Your task to perform on an android device: Search for "alienware area 51" on target.com, select the first entry, add it to the cart, then select checkout. Image 0: 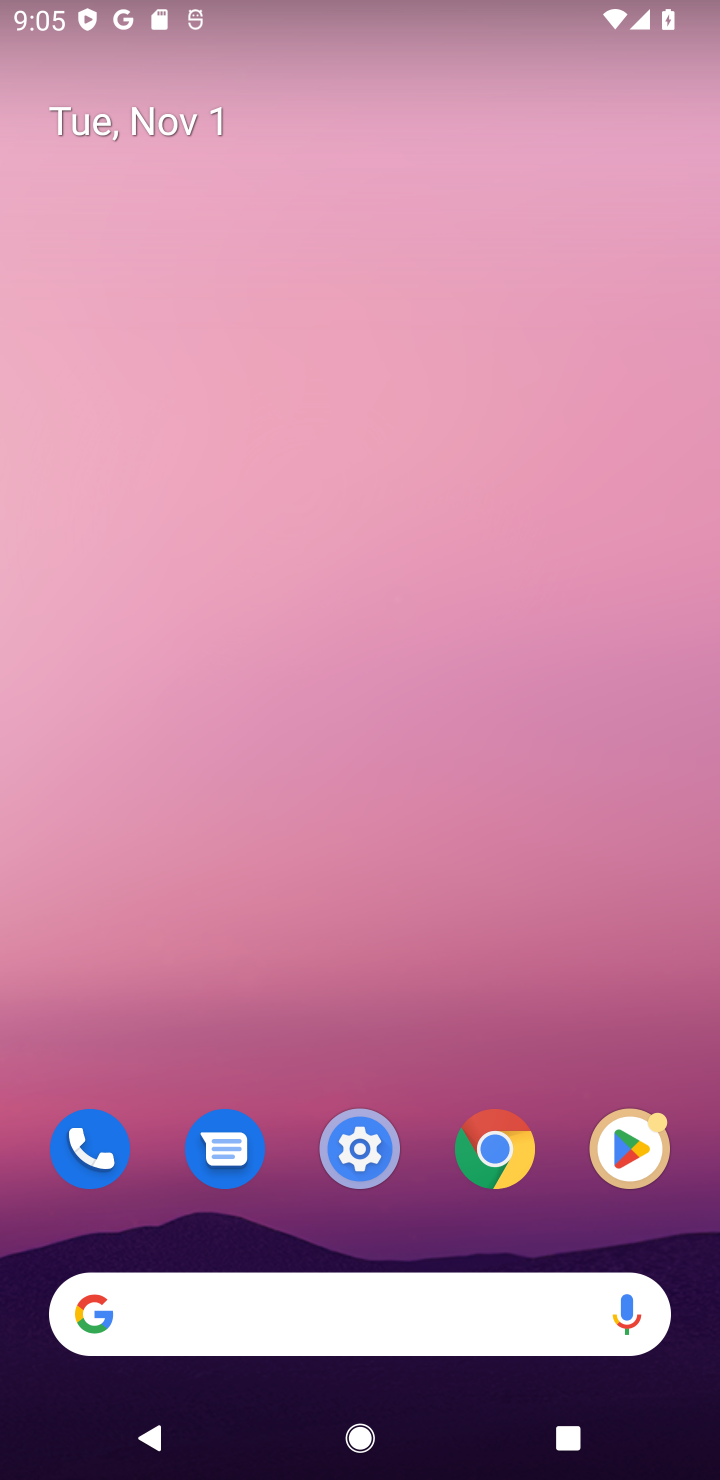
Step 0: press home button
Your task to perform on an android device: Search for "alienware area 51" on target.com, select the first entry, add it to the cart, then select checkout. Image 1: 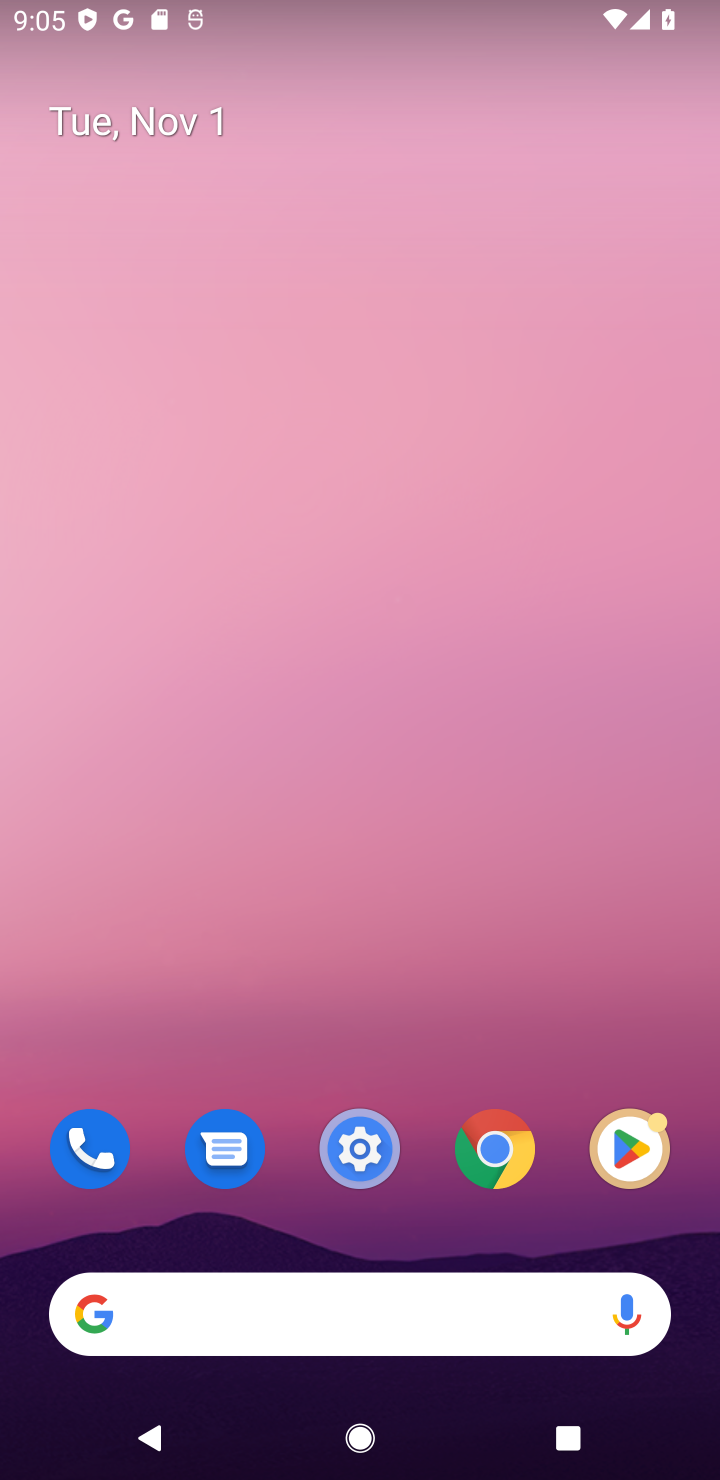
Step 1: click (162, 1312)
Your task to perform on an android device: Search for "alienware area 51" on target.com, select the first entry, add it to the cart, then select checkout. Image 2: 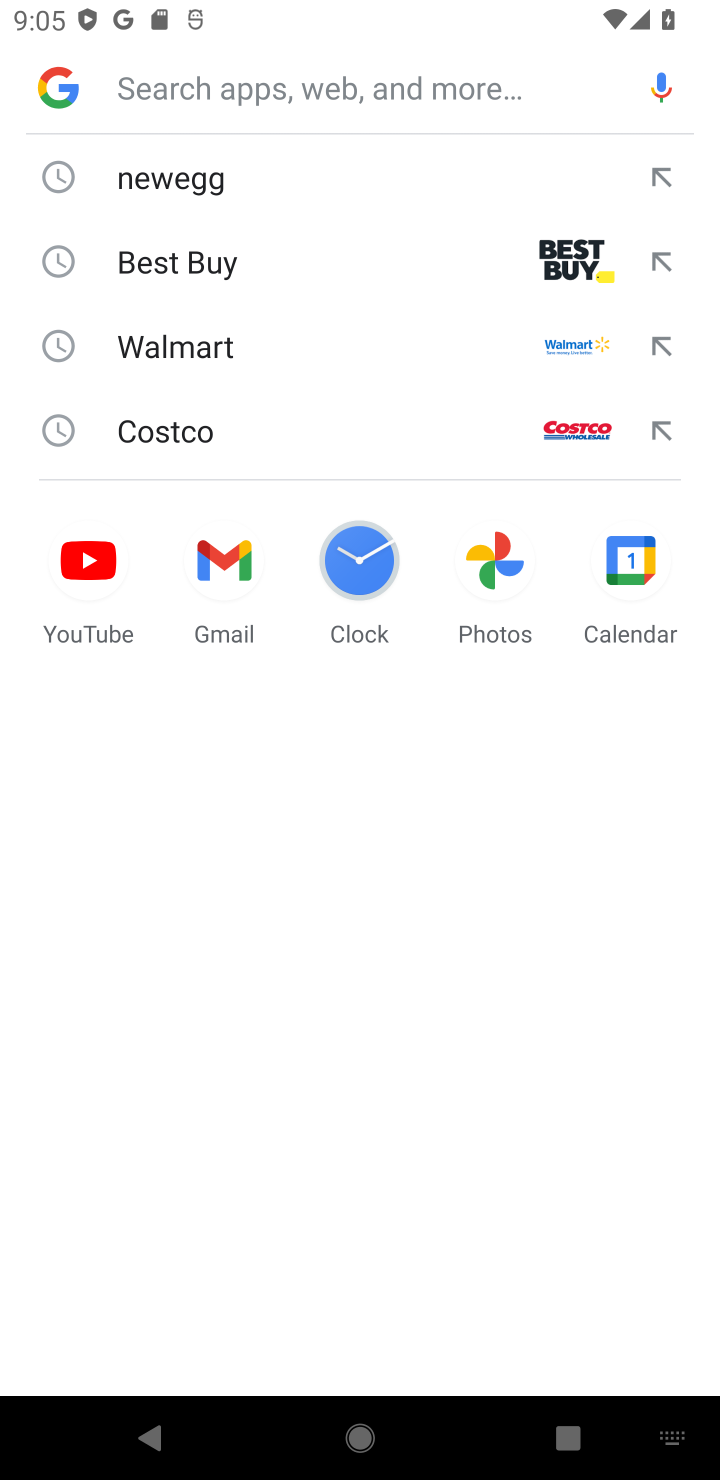
Step 2: type "target.com"
Your task to perform on an android device: Search for "alienware area 51" on target.com, select the first entry, add it to the cart, then select checkout. Image 3: 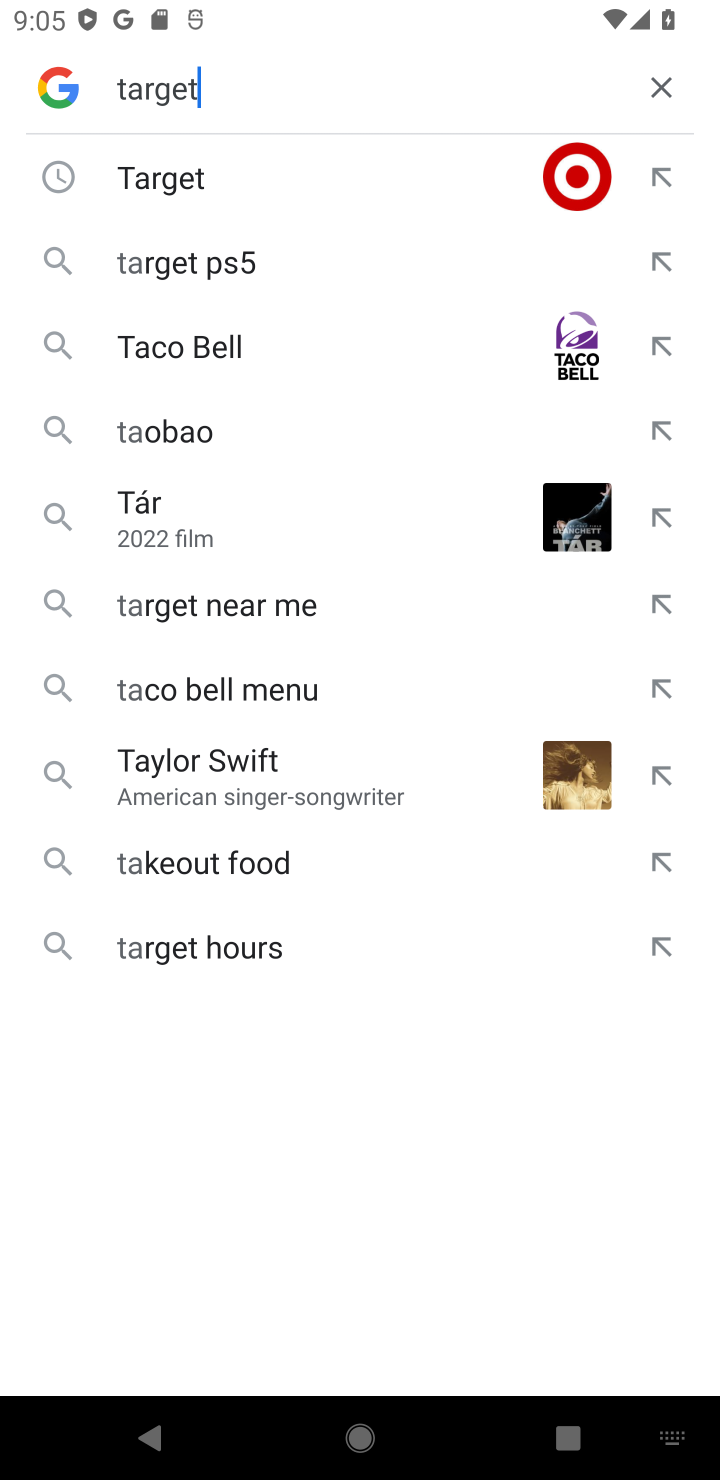
Step 3: press enter
Your task to perform on an android device: Search for "alienware area 51" on target.com, select the first entry, add it to the cart, then select checkout. Image 4: 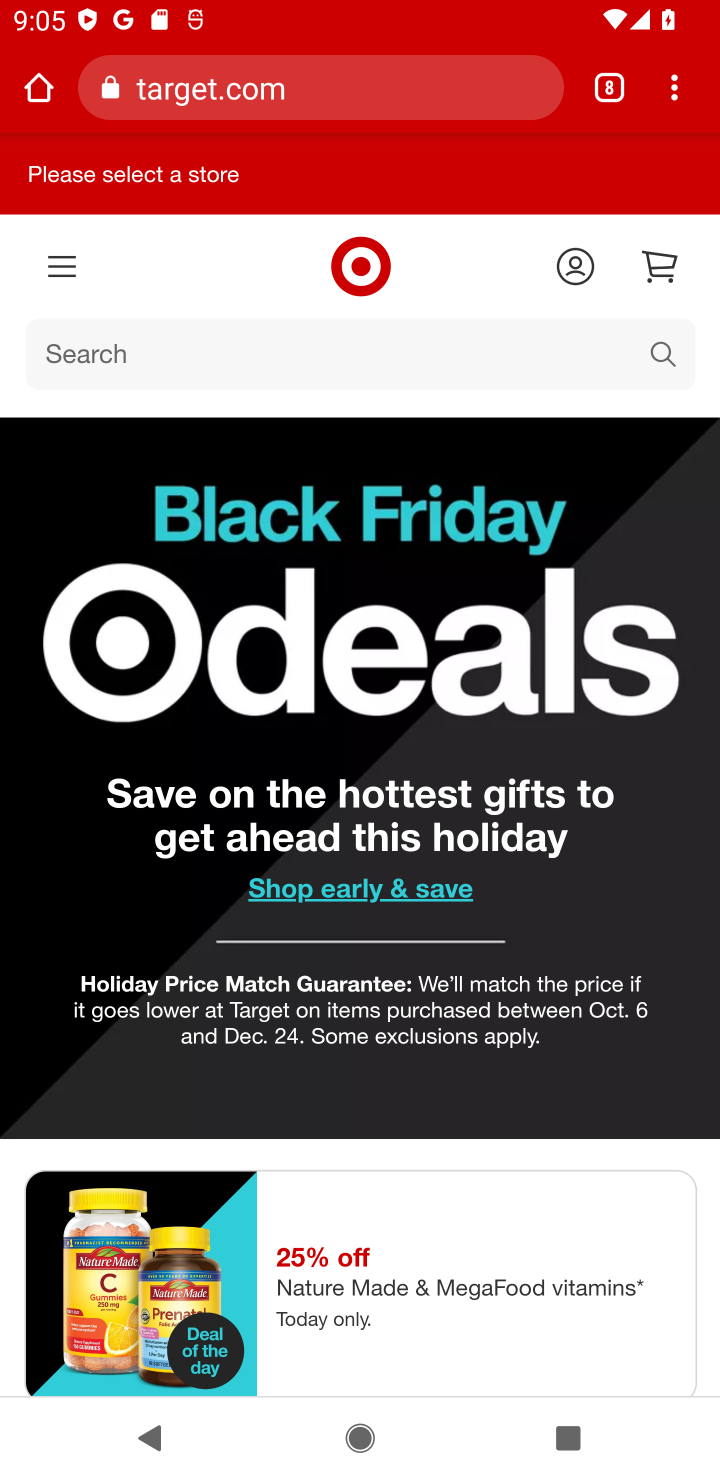
Step 4: click (100, 338)
Your task to perform on an android device: Search for "alienware area 51" on target.com, select the first entry, add it to the cart, then select checkout. Image 5: 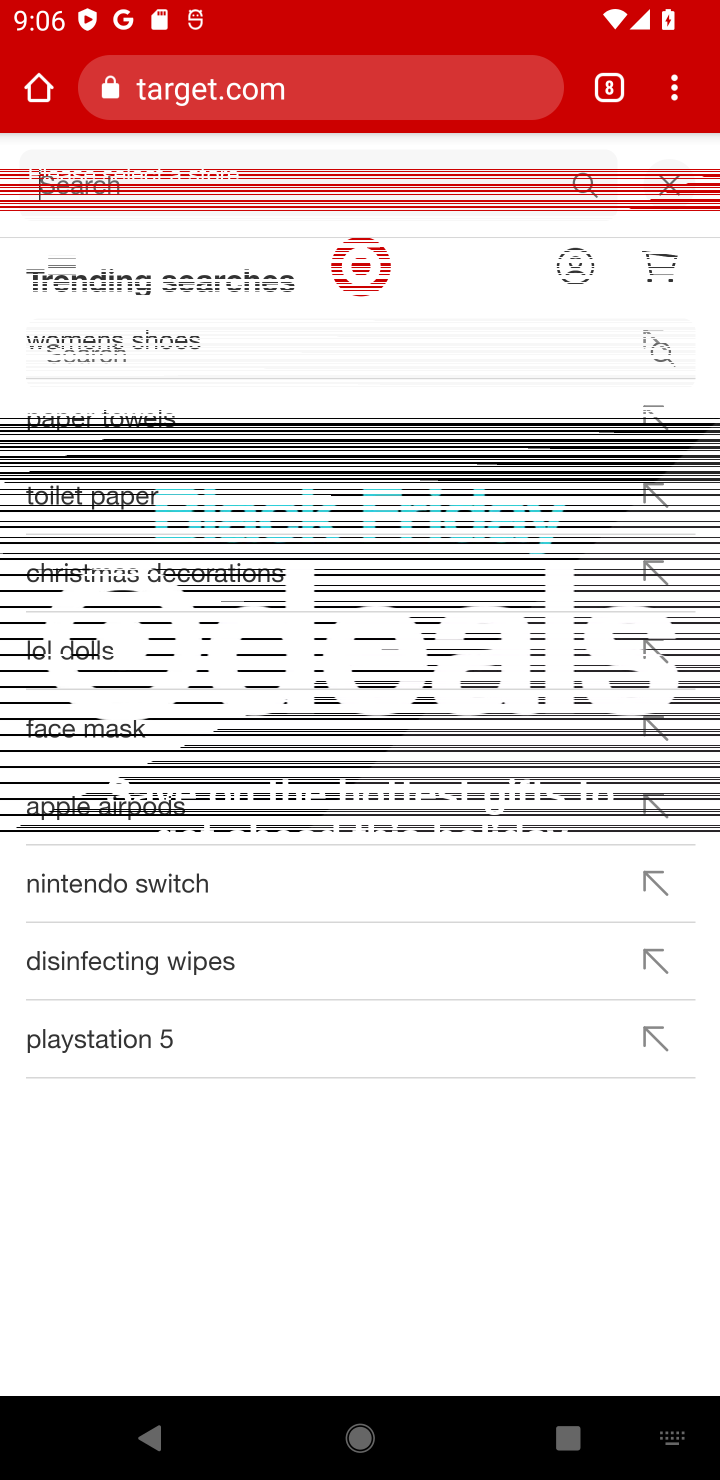
Step 5: type "alienware area 51"
Your task to perform on an android device: Search for "alienware area 51" on target.com, select the first entry, add it to the cart, then select checkout. Image 6: 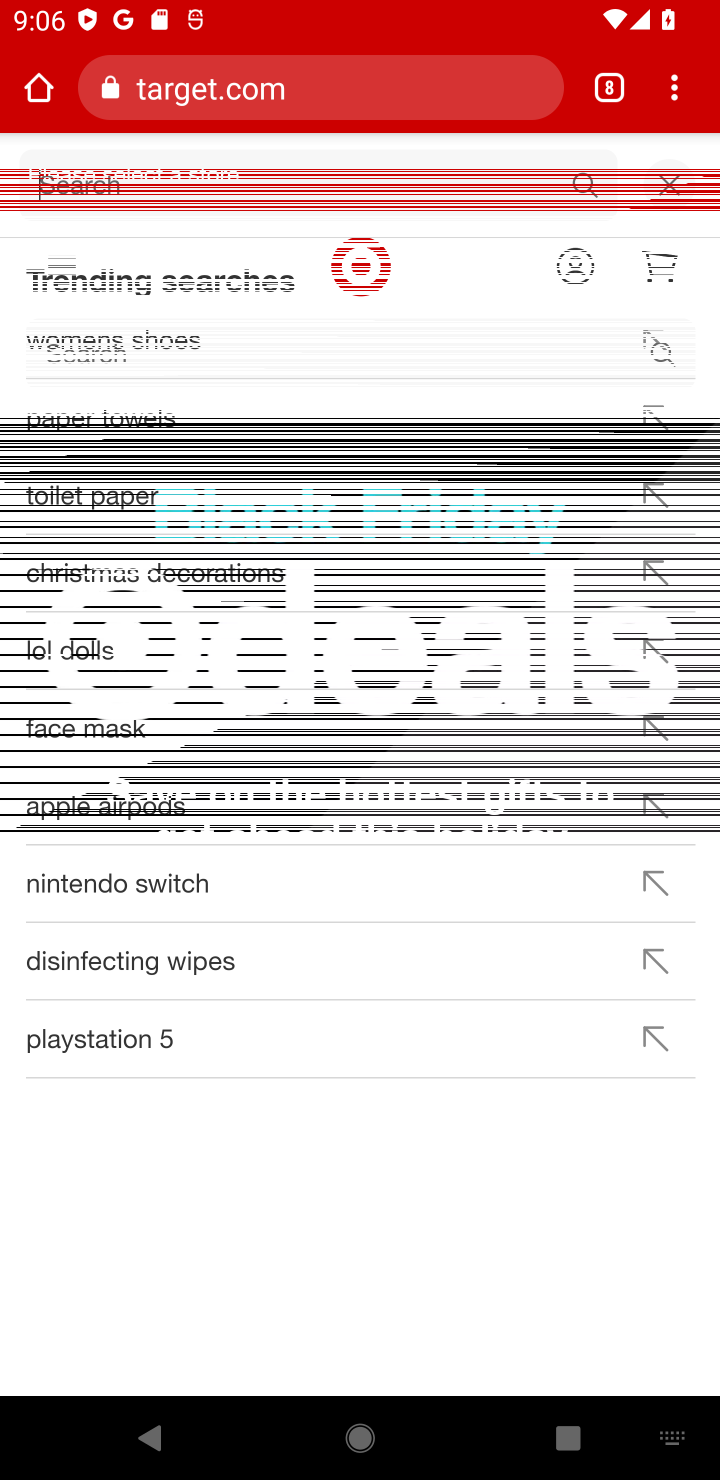
Step 6: click (122, 181)
Your task to perform on an android device: Search for "alienware area 51" on target.com, select the first entry, add it to the cart, then select checkout. Image 7: 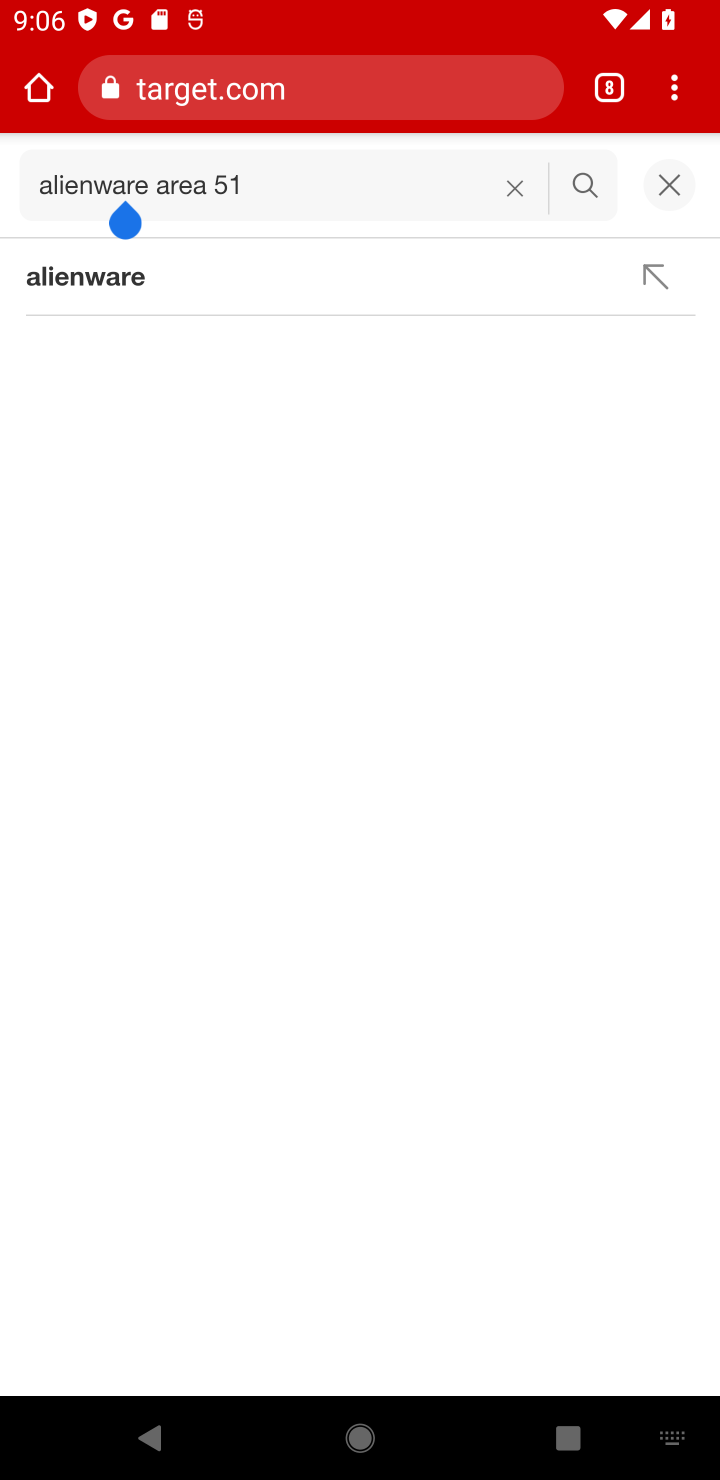
Step 7: press enter
Your task to perform on an android device: Search for "alienware area 51" on target.com, select the first entry, add it to the cart, then select checkout. Image 8: 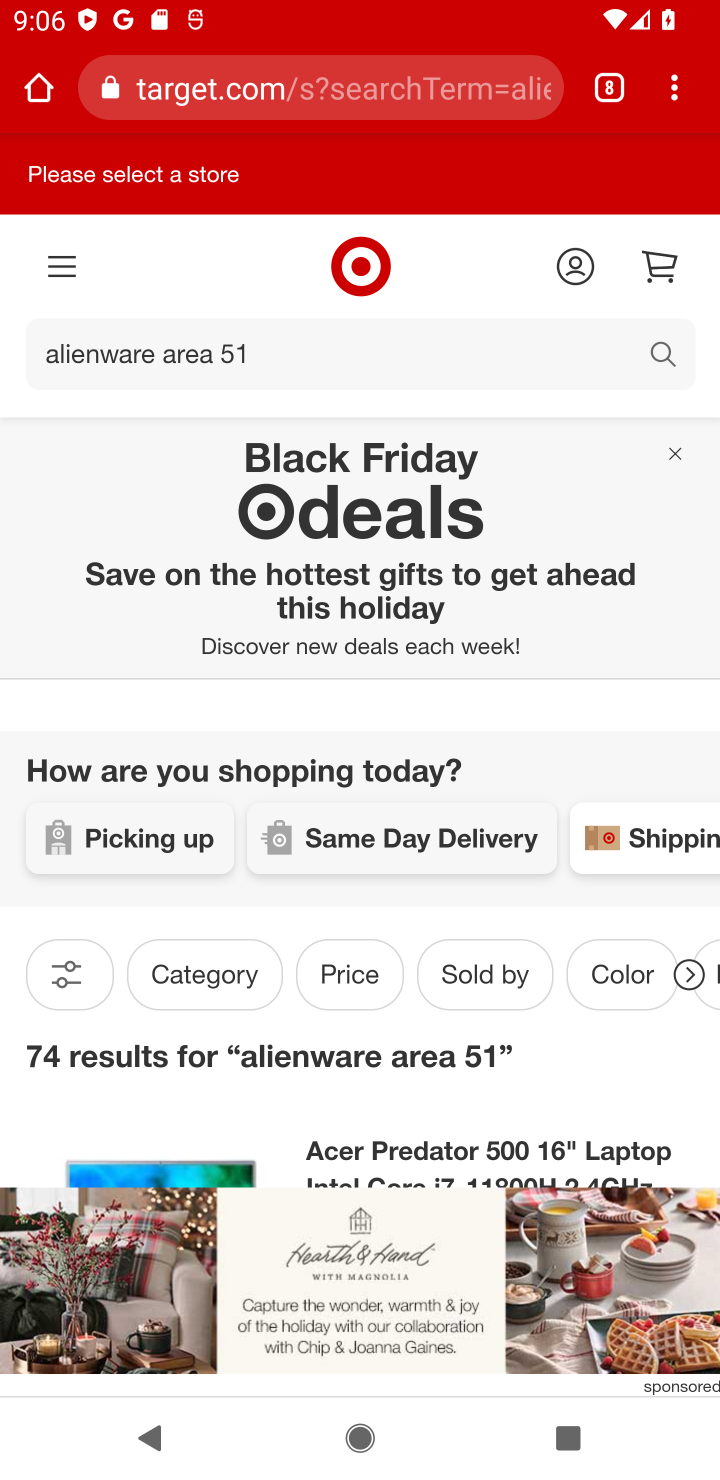
Step 8: drag from (458, 1229) to (458, 636)
Your task to perform on an android device: Search for "alienware area 51" on target.com, select the first entry, add it to the cart, then select checkout. Image 9: 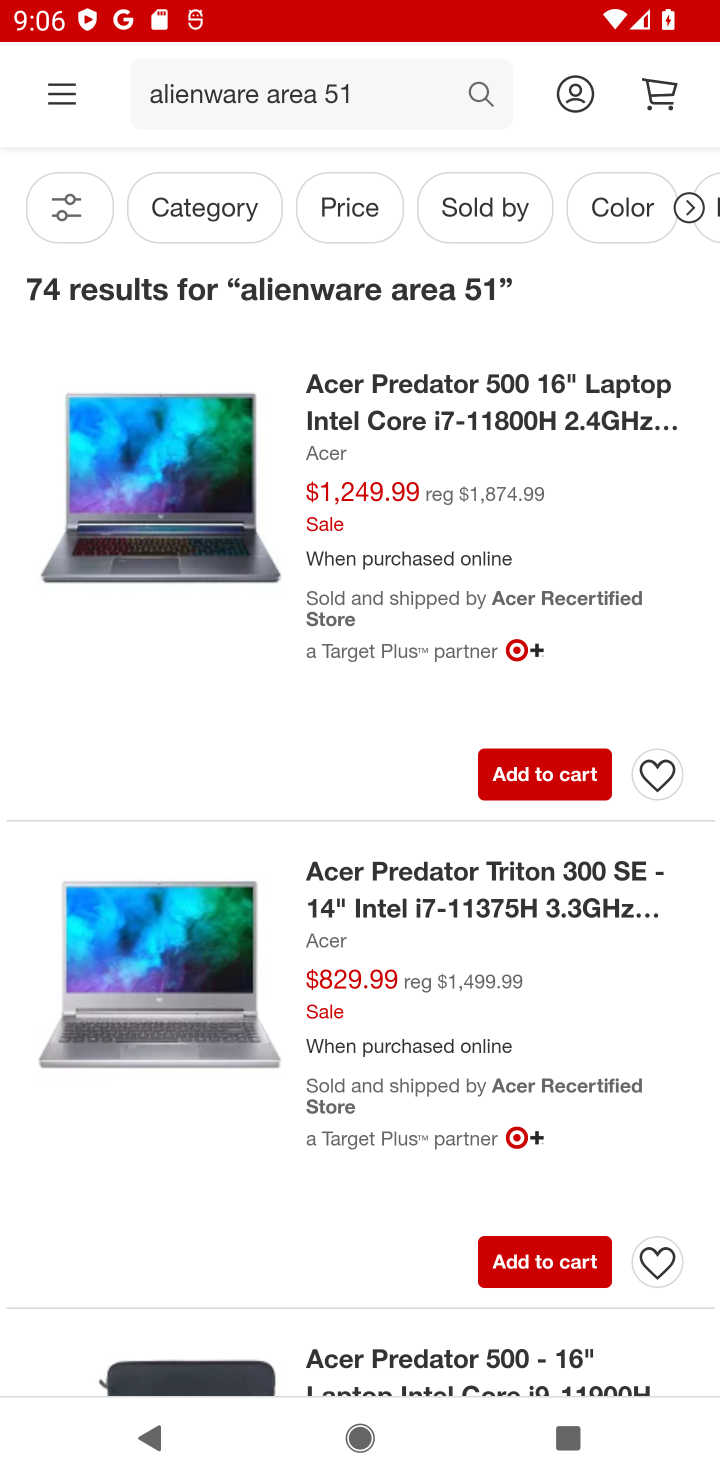
Step 9: drag from (386, 1121) to (395, 542)
Your task to perform on an android device: Search for "alienware area 51" on target.com, select the first entry, add it to the cart, then select checkout. Image 10: 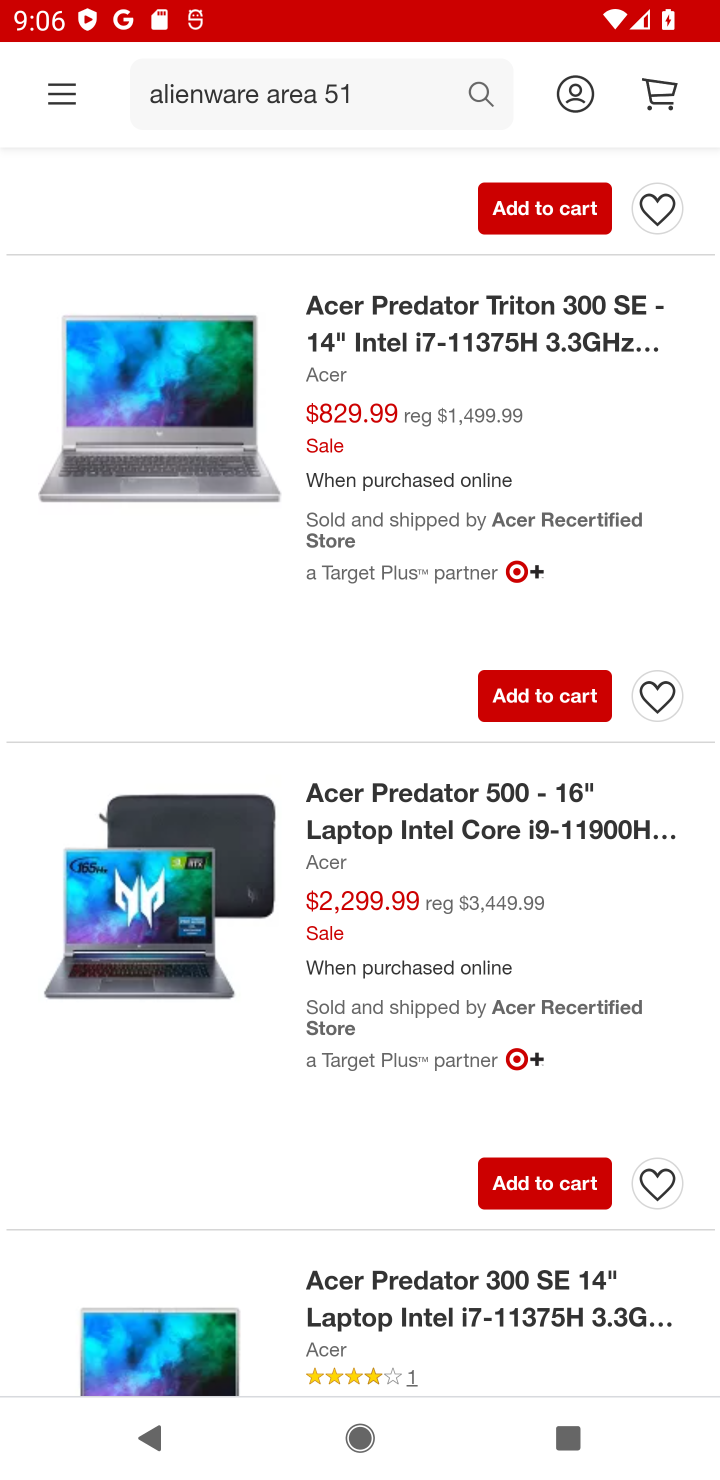
Step 10: drag from (364, 1169) to (401, 682)
Your task to perform on an android device: Search for "alienware area 51" on target.com, select the first entry, add it to the cart, then select checkout. Image 11: 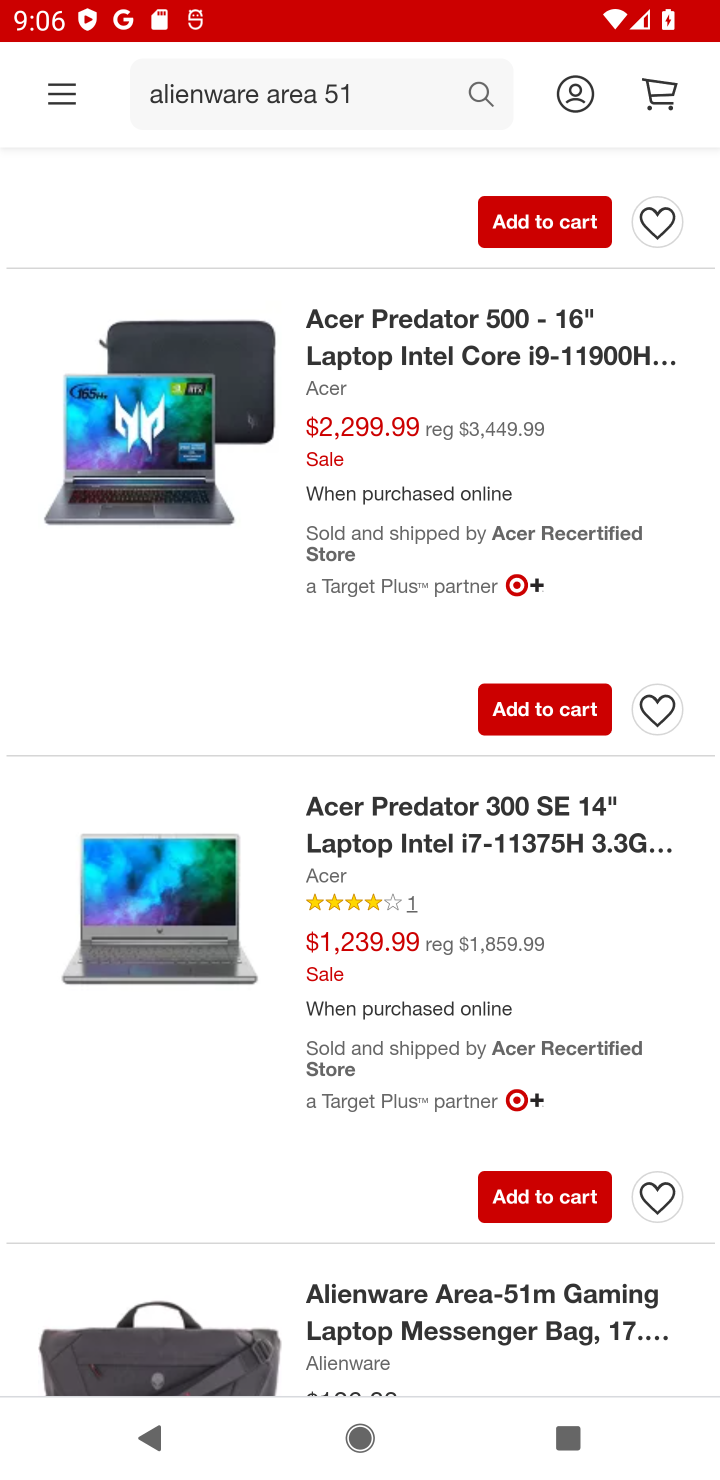
Step 11: drag from (356, 1091) to (356, 587)
Your task to perform on an android device: Search for "alienware area 51" on target.com, select the first entry, add it to the cart, then select checkout. Image 12: 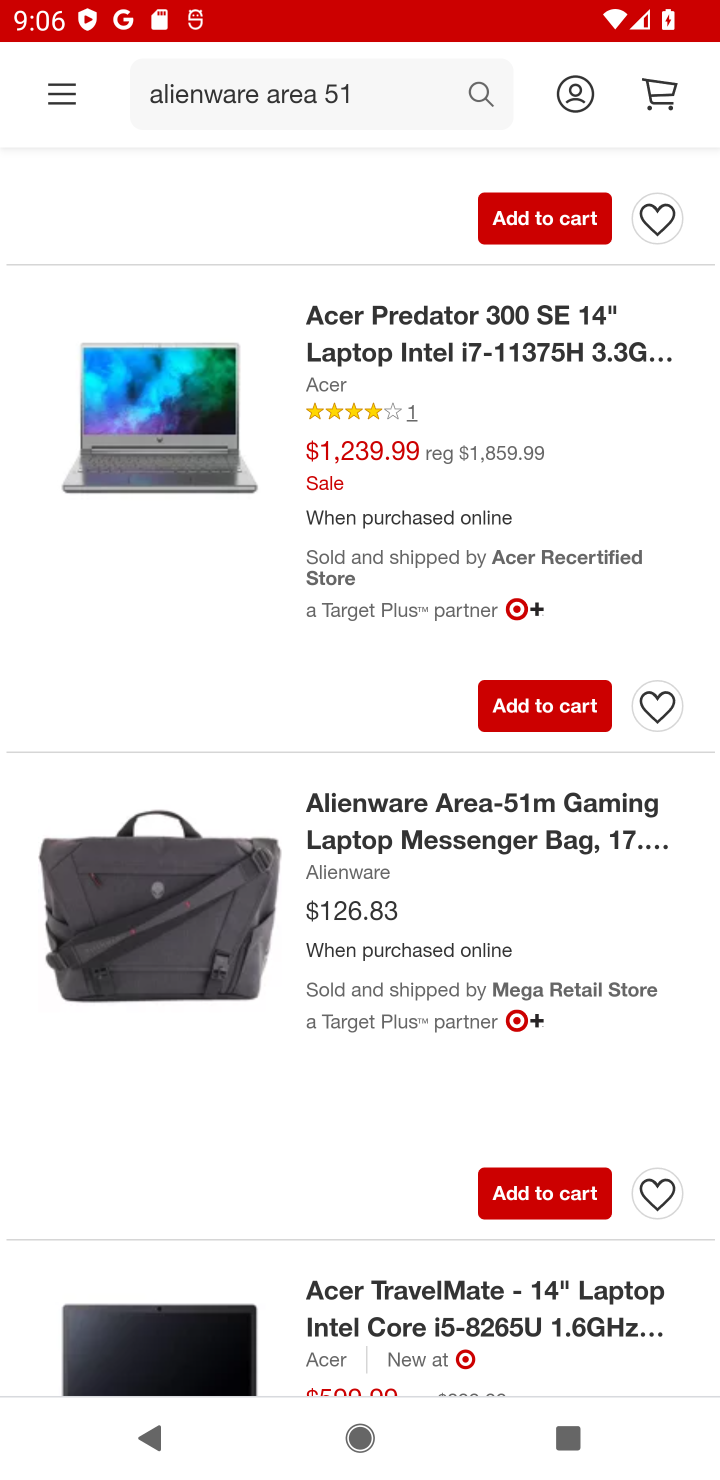
Step 12: click (389, 856)
Your task to perform on an android device: Search for "alienware area 51" on target.com, select the first entry, add it to the cart, then select checkout. Image 13: 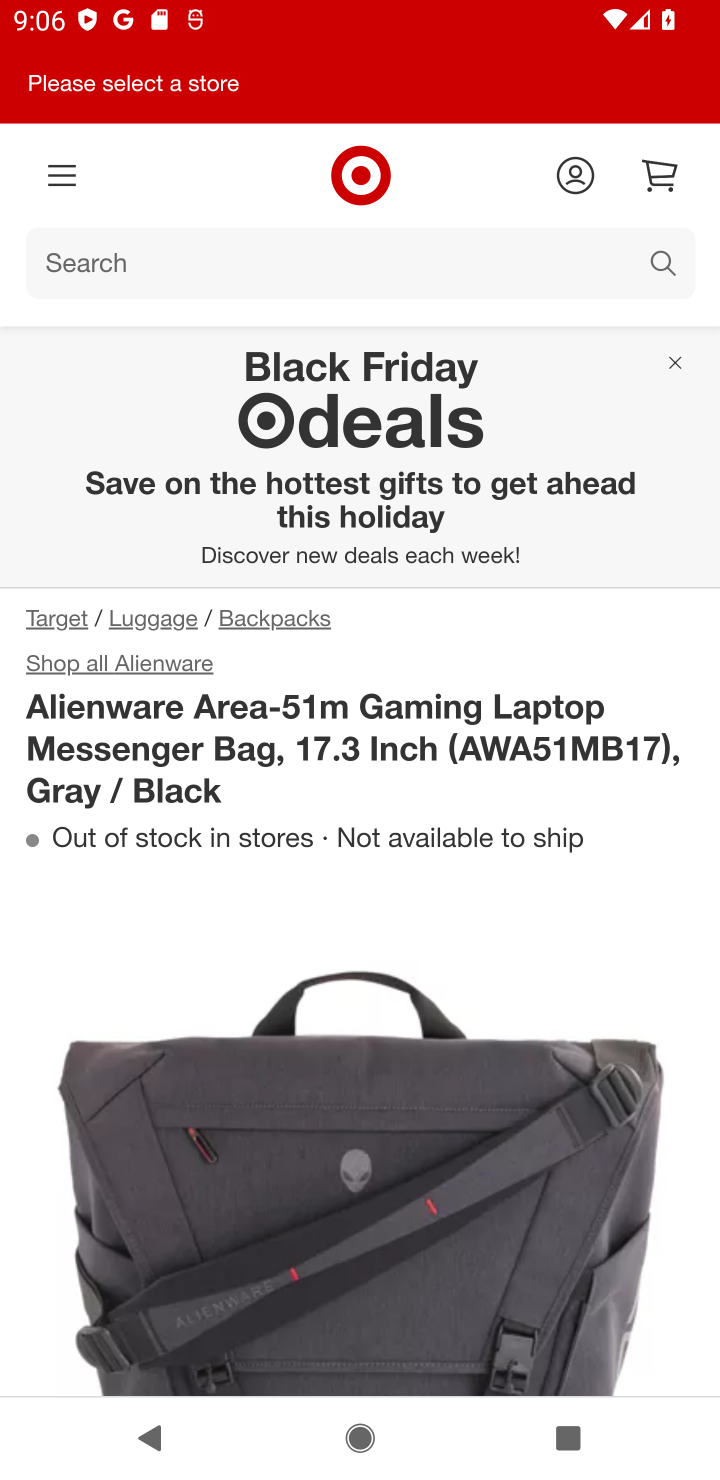
Step 13: drag from (387, 1156) to (419, 695)
Your task to perform on an android device: Search for "alienware area 51" on target.com, select the first entry, add it to the cart, then select checkout. Image 14: 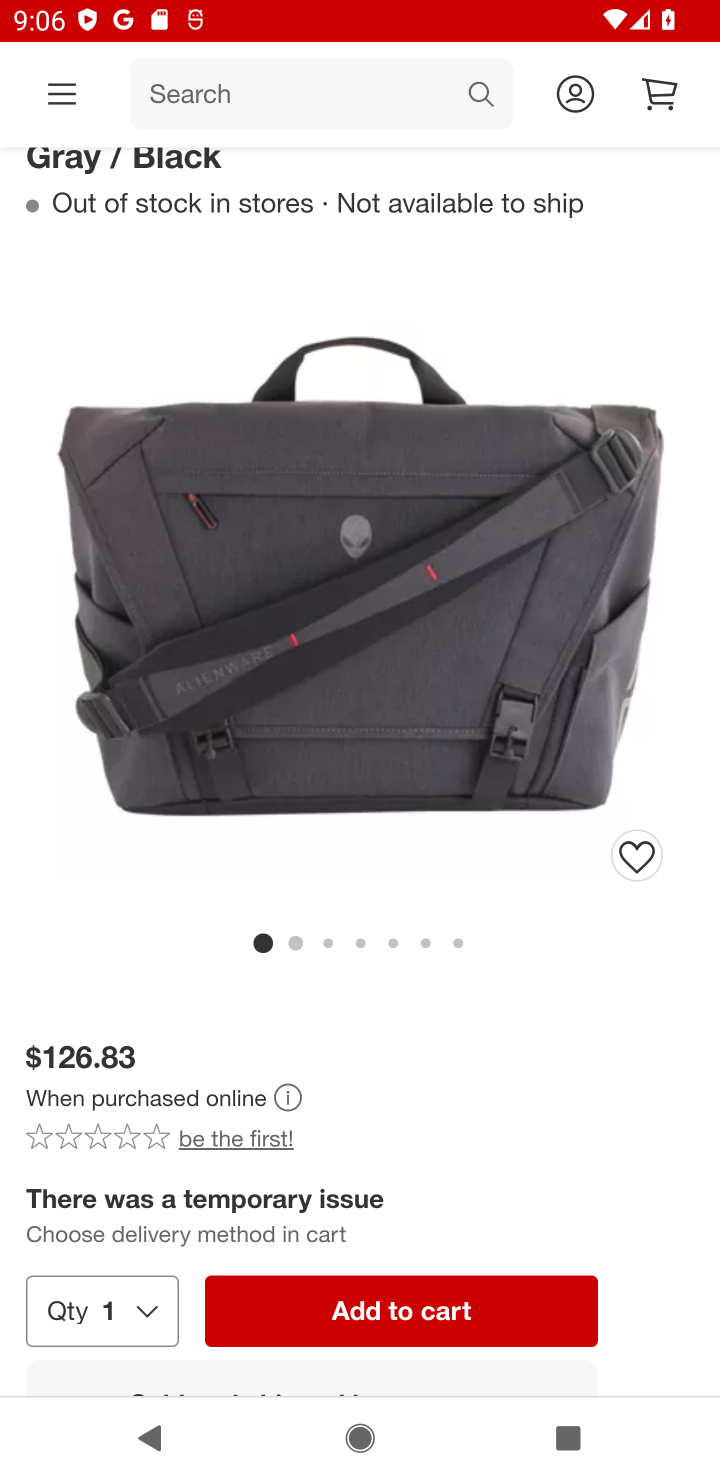
Step 14: click (418, 1320)
Your task to perform on an android device: Search for "alienware area 51" on target.com, select the first entry, add it to the cart, then select checkout. Image 15: 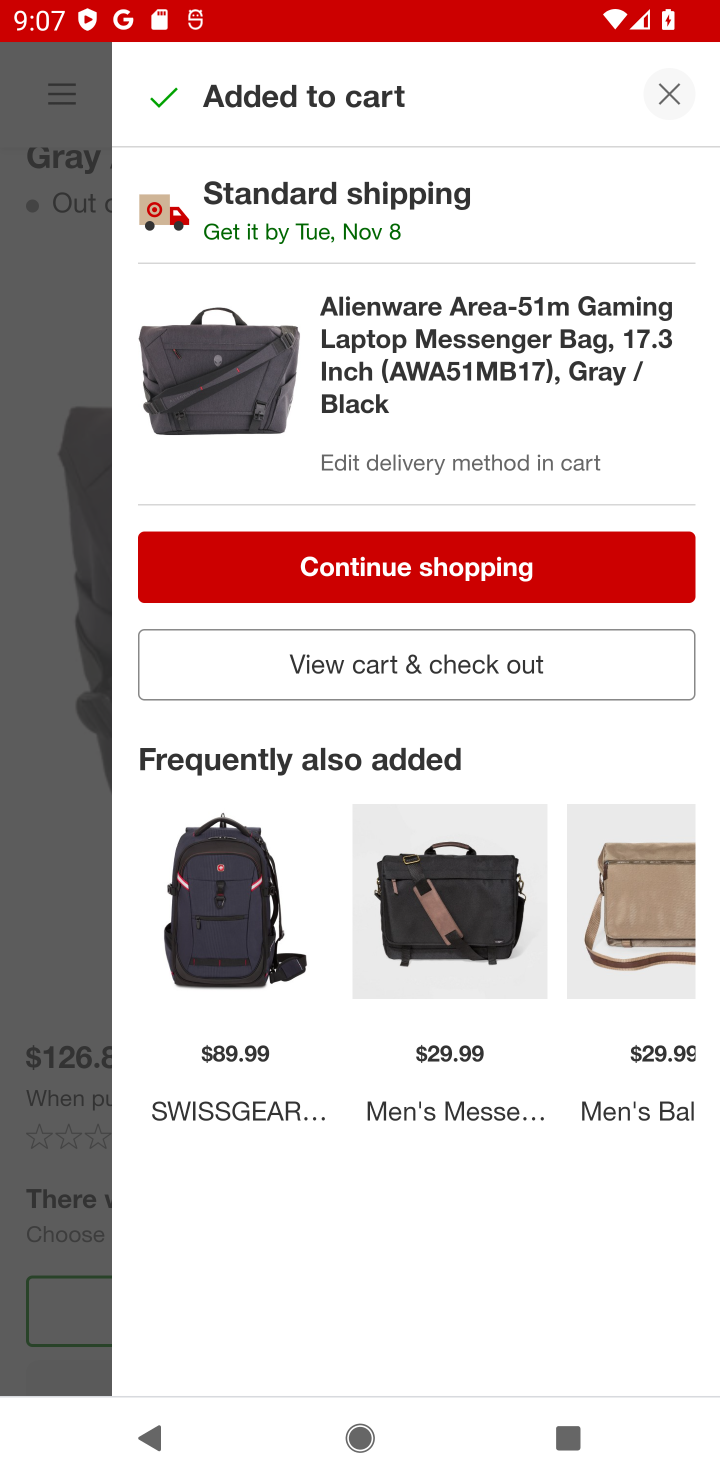
Step 15: click (446, 554)
Your task to perform on an android device: Search for "alienware area 51" on target.com, select the first entry, add it to the cart, then select checkout. Image 16: 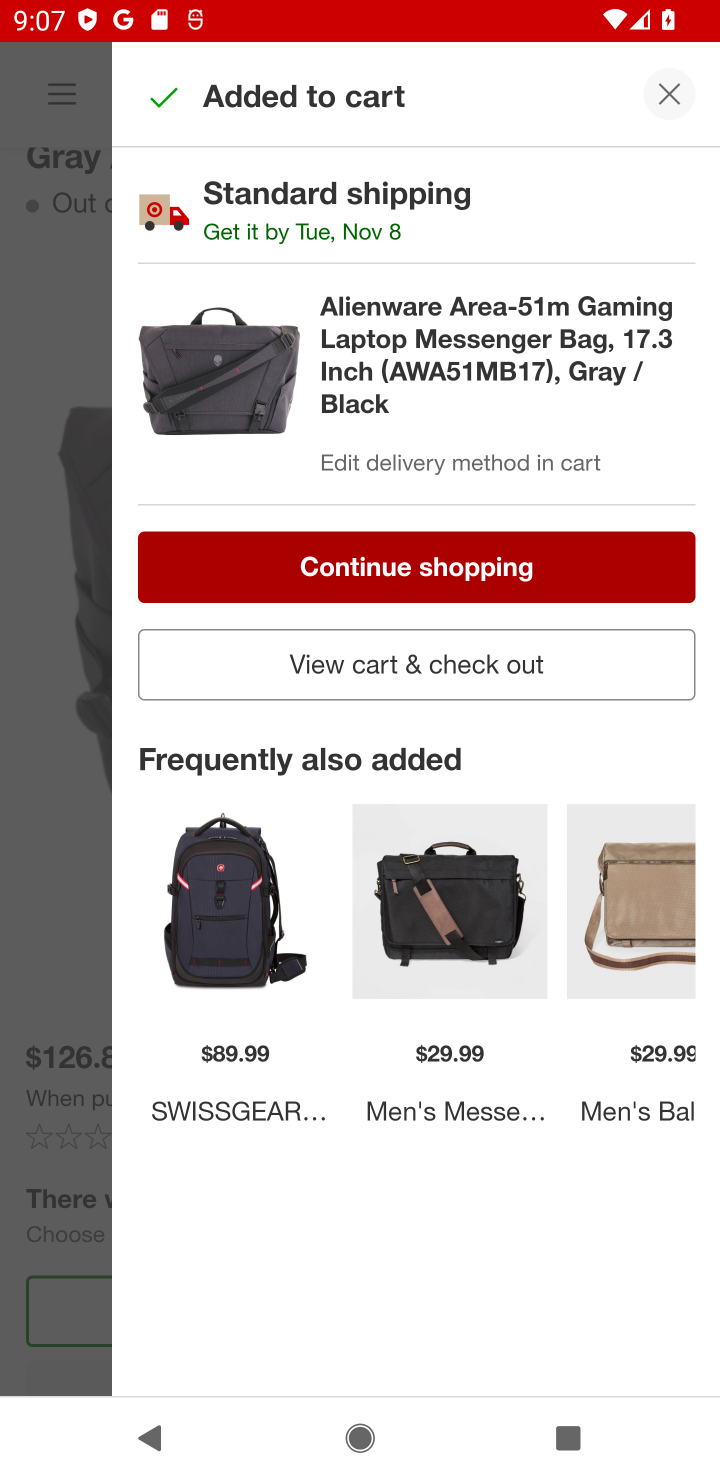
Step 16: click (457, 662)
Your task to perform on an android device: Search for "alienware area 51" on target.com, select the first entry, add it to the cart, then select checkout. Image 17: 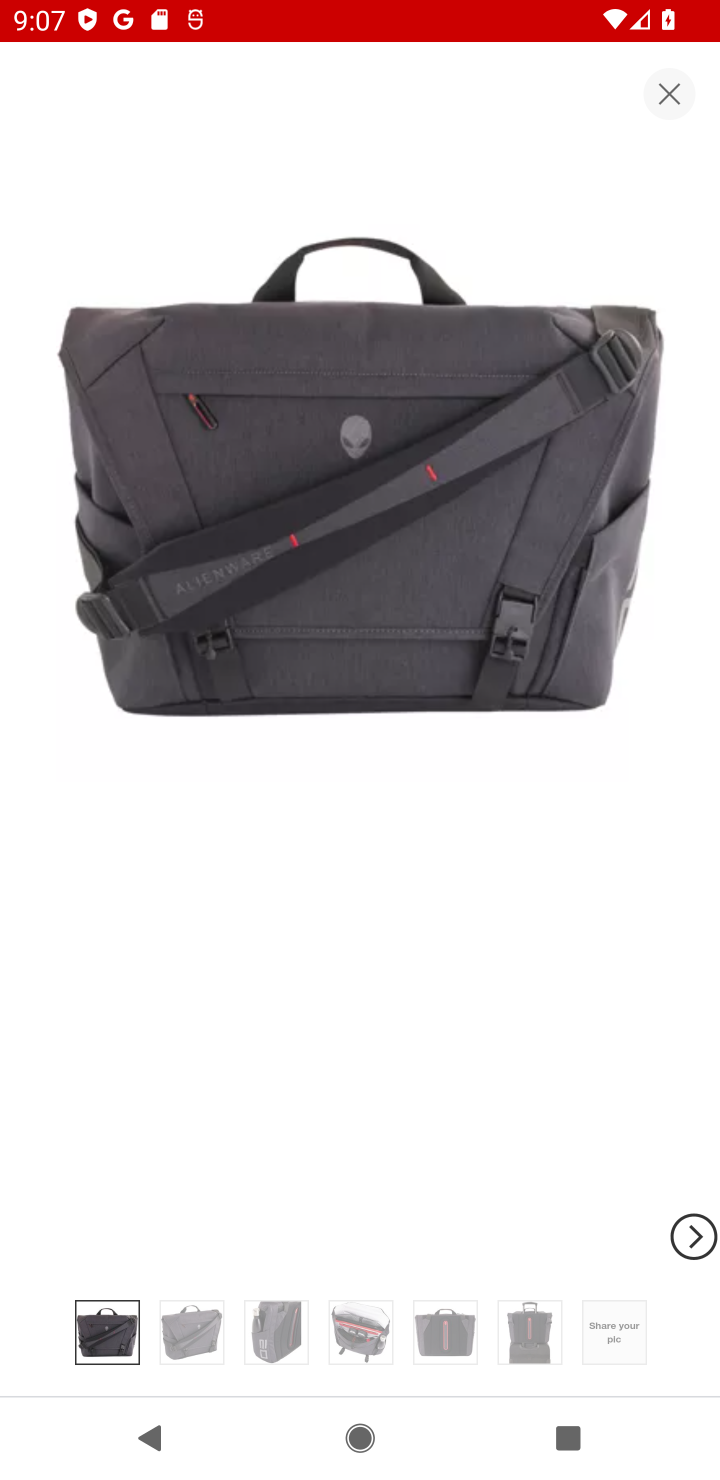
Step 17: task complete